Your task to perform on an android device: Open the Play Movies app and select the watchlist tab. Image 0: 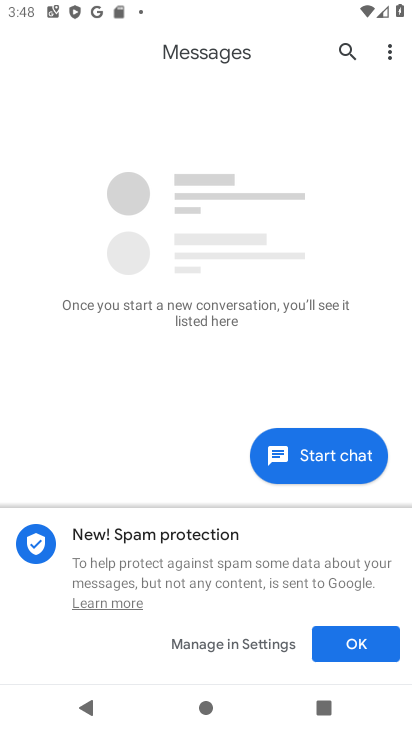
Step 0: drag from (293, 673) to (165, 3)
Your task to perform on an android device: Open the Play Movies app and select the watchlist tab. Image 1: 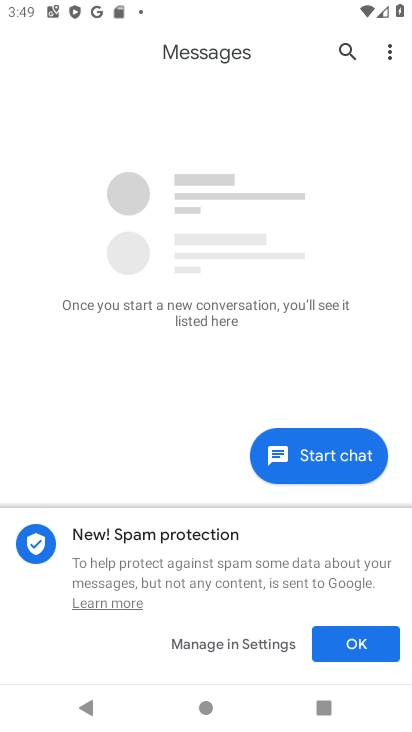
Step 1: press back button
Your task to perform on an android device: Open the Play Movies app and select the watchlist tab. Image 2: 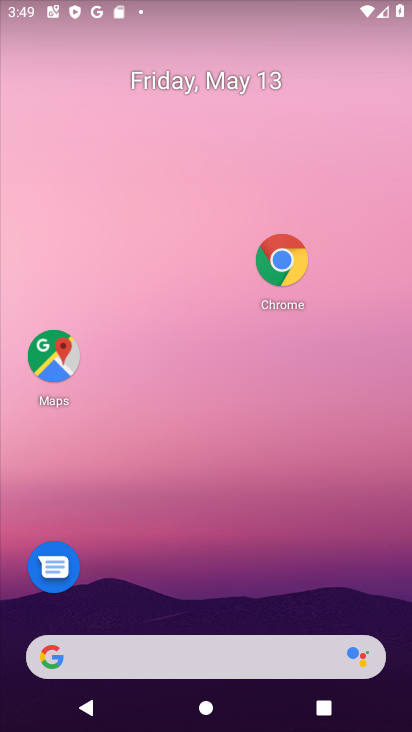
Step 2: drag from (303, 614) to (179, 210)
Your task to perform on an android device: Open the Play Movies app and select the watchlist tab. Image 3: 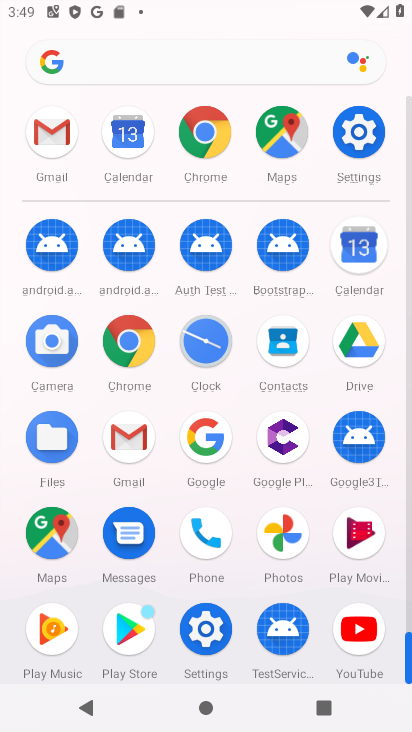
Step 3: click (353, 532)
Your task to perform on an android device: Open the Play Movies app and select the watchlist tab. Image 4: 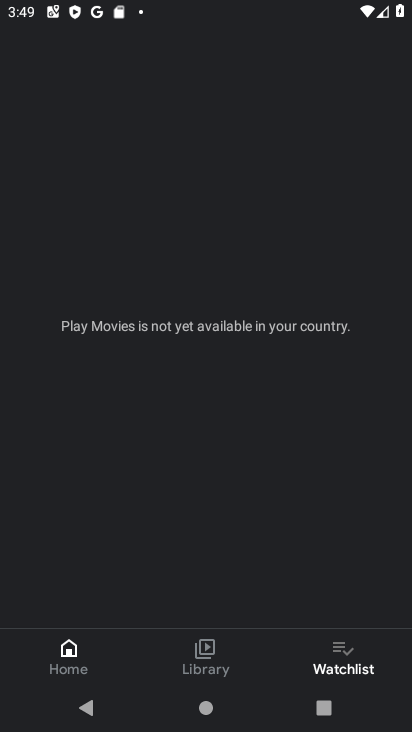
Step 4: click (343, 644)
Your task to perform on an android device: Open the Play Movies app and select the watchlist tab. Image 5: 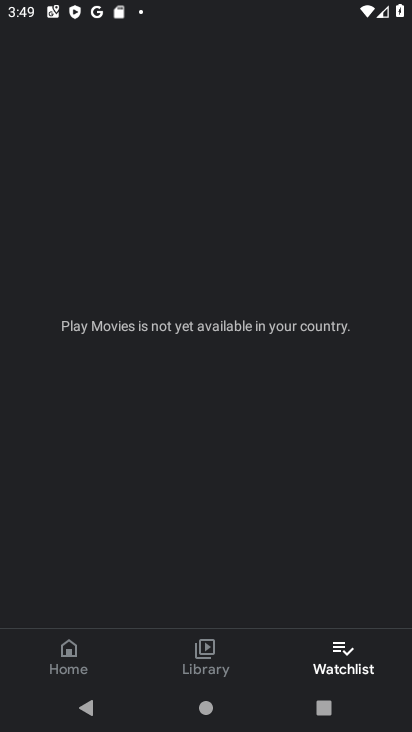
Step 5: task complete